Your task to perform on an android device: Turn on the flashlight Image 0: 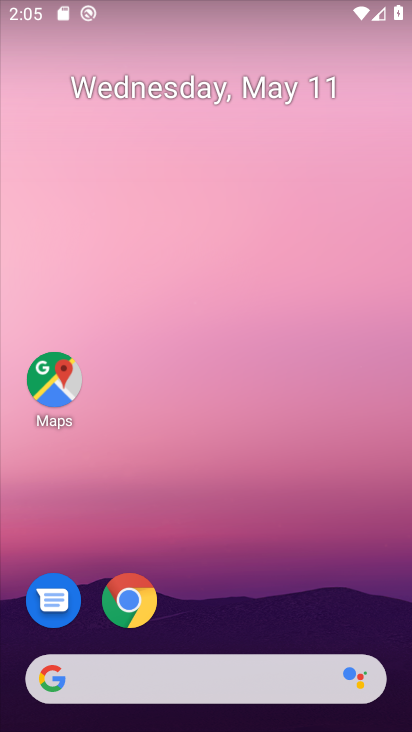
Step 0: drag from (183, 461) to (236, 21)
Your task to perform on an android device: Turn on the flashlight Image 1: 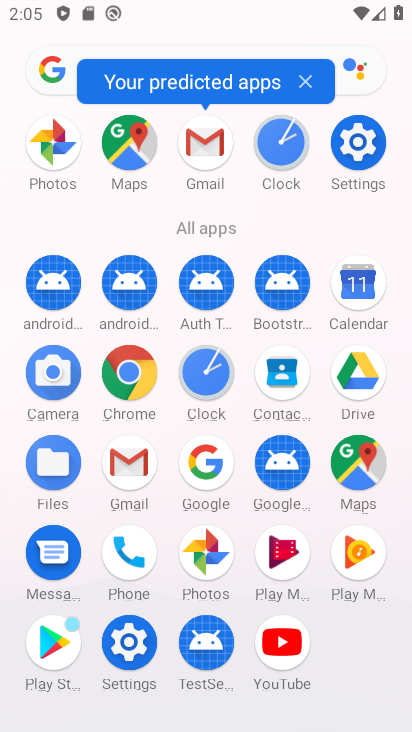
Step 1: task complete